Your task to perform on an android device: see sites visited before in the chrome app Image 0: 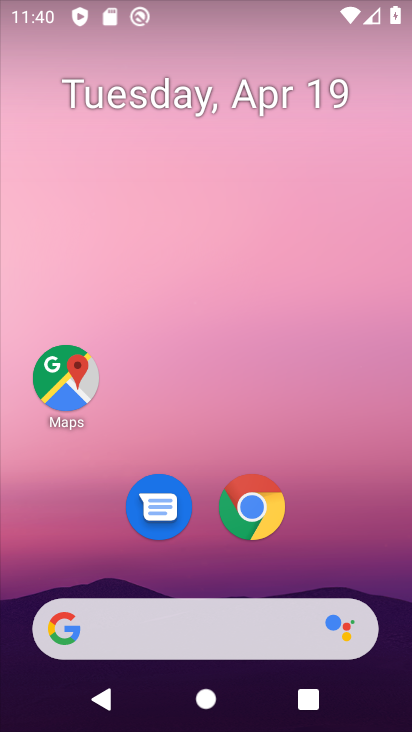
Step 0: drag from (382, 537) to (378, 176)
Your task to perform on an android device: see sites visited before in the chrome app Image 1: 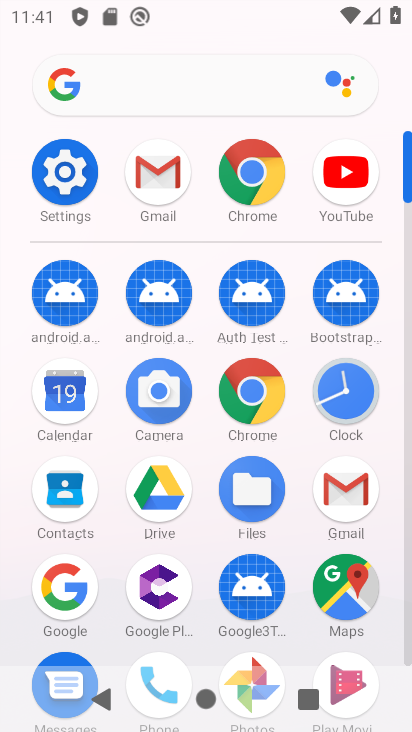
Step 1: click (264, 397)
Your task to perform on an android device: see sites visited before in the chrome app Image 2: 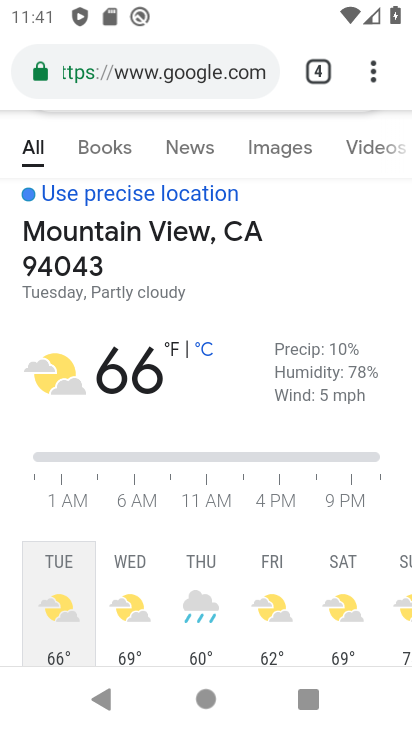
Step 2: click (380, 86)
Your task to perform on an android device: see sites visited before in the chrome app Image 3: 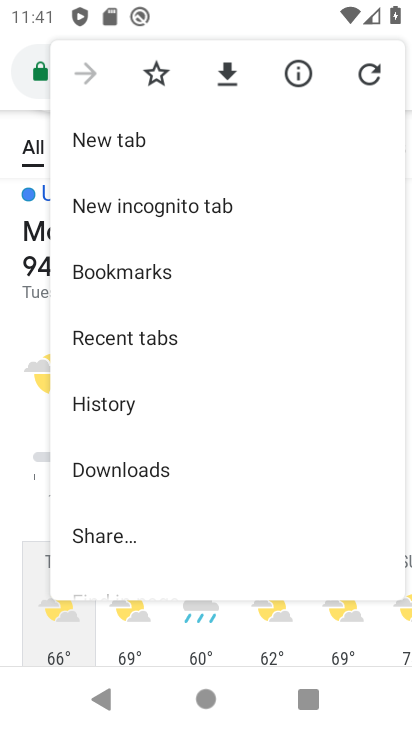
Step 3: click (152, 337)
Your task to perform on an android device: see sites visited before in the chrome app Image 4: 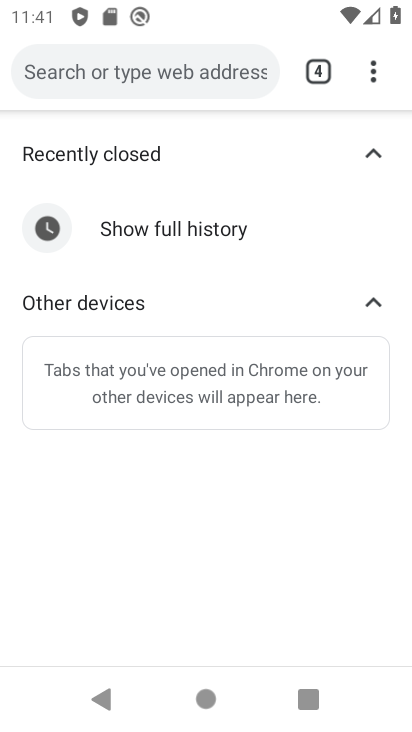
Step 4: task complete